Your task to perform on an android device: empty trash in google photos Image 0: 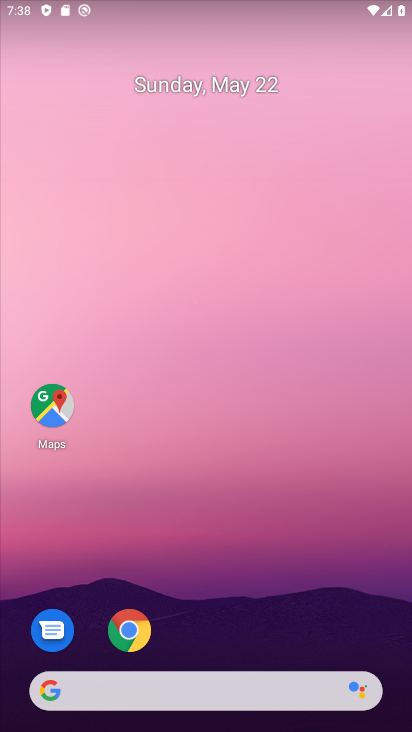
Step 0: drag from (274, 620) to (183, 6)
Your task to perform on an android device: empty trash in google photos Image 1: 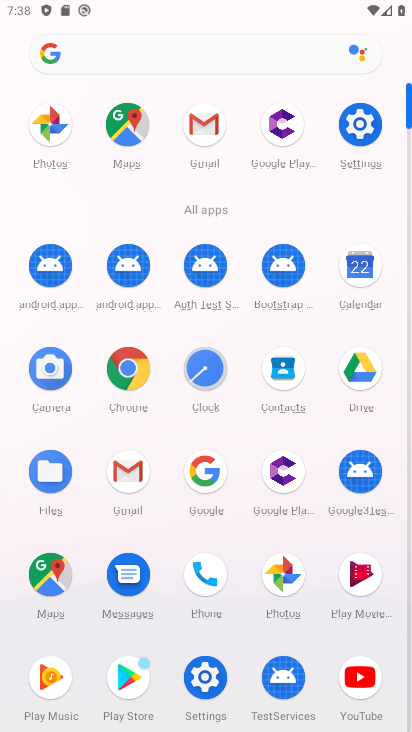
Step 1: click (67, 129)
Your task to perform on an android device: empty trash in google photos Image 2: 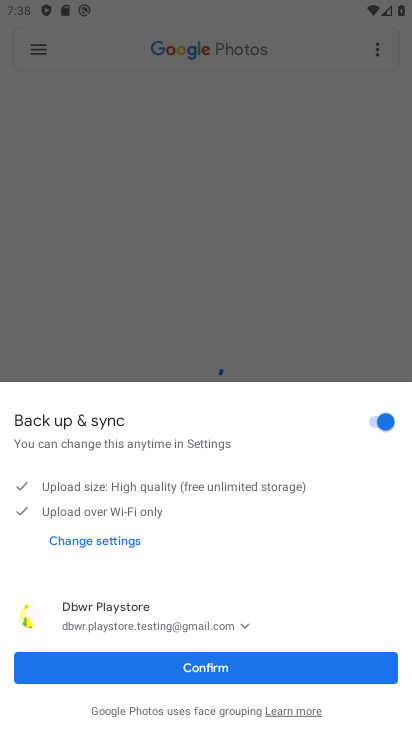
Step 2: click (295, 681)
Your task to perform on an android device: empty trash in google photos Image 3: 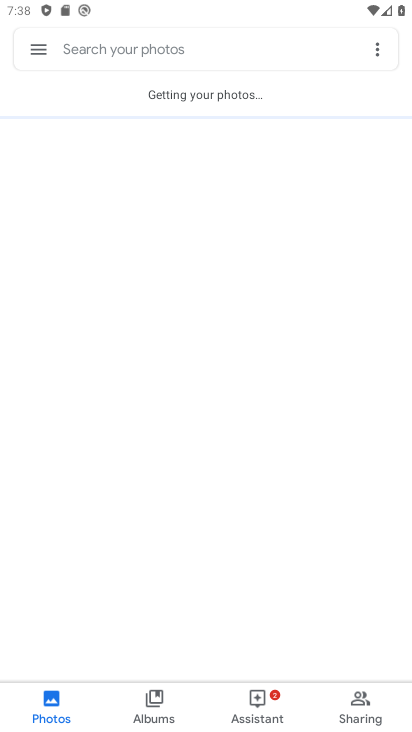
Step 3: click (36, 49)
Your task to perform on an android device: empty trash in google photos Image 4: 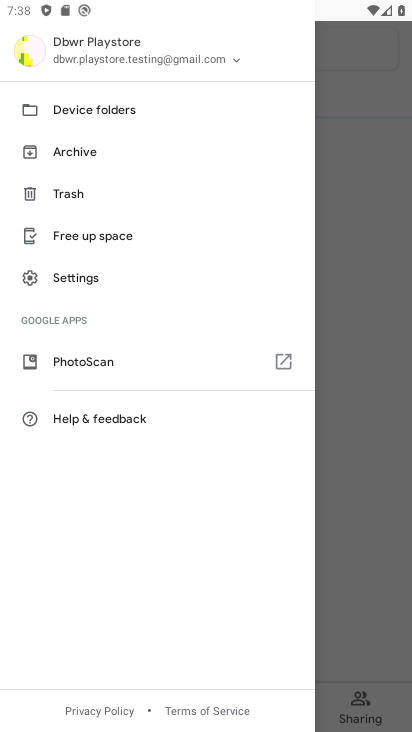
Step 4: click (68, 272)
Your task to perform on an android device: empty trash in google photos Image 5: 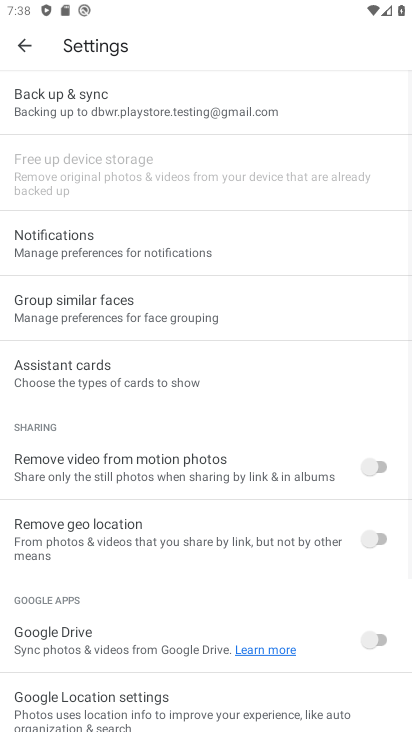
Step 5: task complete